Your task to perform on an android device: open app "Paramount+ | Peak Streaming" (install if not already installed), go to login, and select forgot password Image 0: 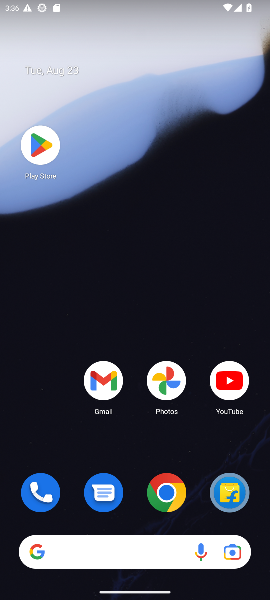
Step 0: click (34, 140)
Your task to perform on an android device: open app "Paramount+ | Peak Streaming" (install if not already installed), go to login, and select forgot password Image 1: 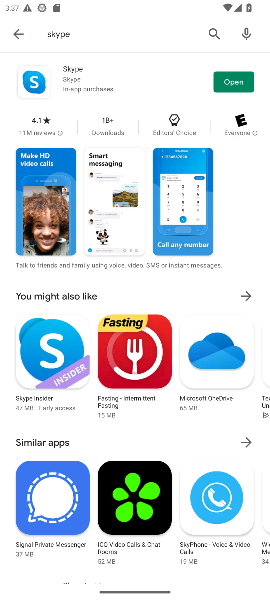
Step 1: click (202, 35)
Your task to perform on an android device: open app "Paramount+ | Peak Streaming" (install if not already installed), go to login, and select forgot password Image 2: 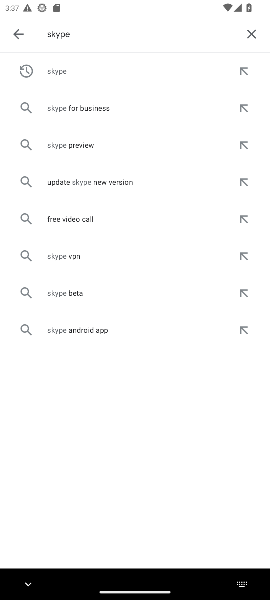
Step 2: click (252, 26)
Your task to perform on an android device: open app "Paramount+ | Peak Streaming" (install if not already installed), go to login, and select forgot password Image 3: 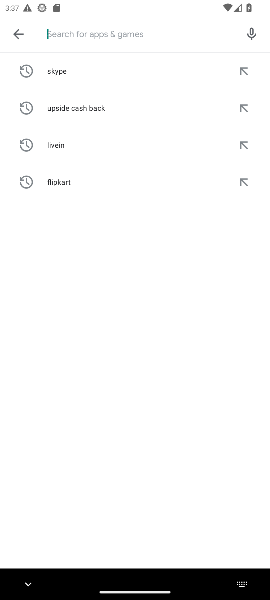
Step 3: type "paramount"
Your task to perform on an android device: open app "Paramount+ | Peak Streaming" (install if not already installed), go to login, and select forgot password Image 4: 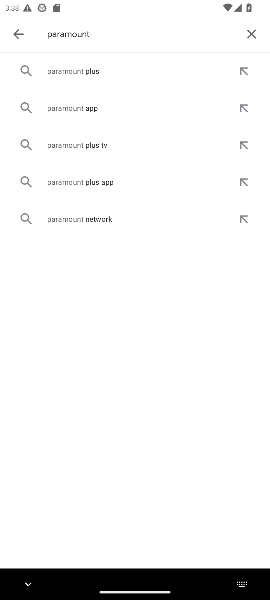
Step 4: click (69, 79)
Your task to perform on an android device: open app "Paramount+ | Peak Streaming" (install if not already installed), go to login, and select forgot password Image 5: 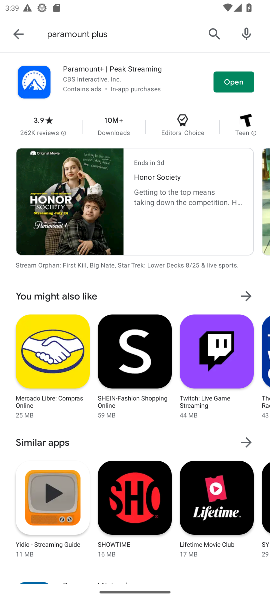
Step 5: click (219, 80)
Your task to perform on an android device: open app "Paramount+ | Peak Streaming" (install if not already installed), go to login, and select forgot password Image 6: 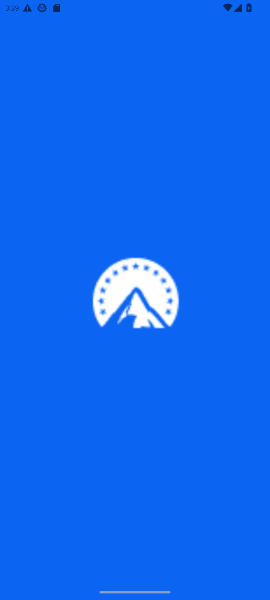
Step 6: task complete